Your task to perform on an android device: Open privacy settings Image 0: 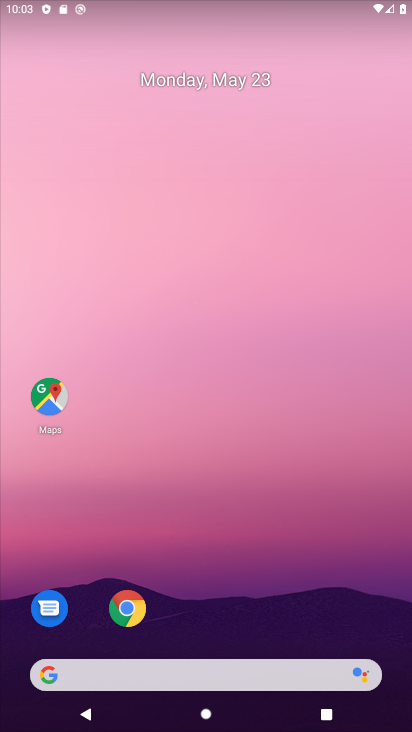
Step 0: click (127, 607)
Your task to perform on an android device: Open privacy settings Image 1: 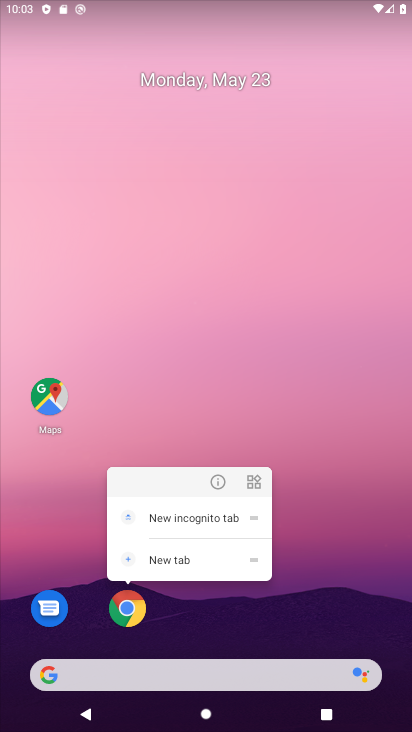
Step 1: click (136, 616)
Your task to perform on an android device: Open privacy settings Image 2: 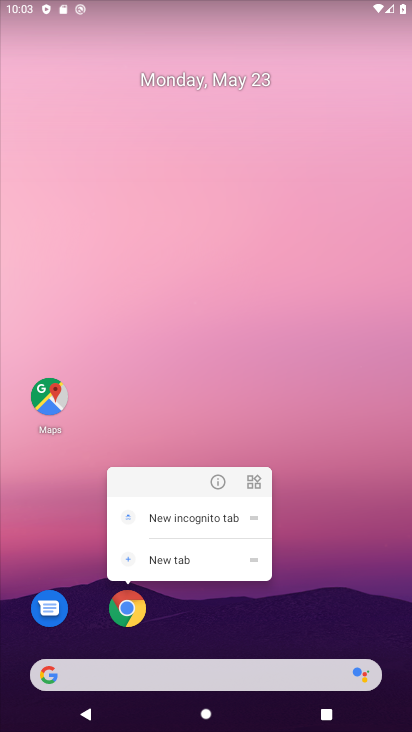
Step 2: click (133, 614)
Your task to perform on an android device: Open privacy settings Image 3: 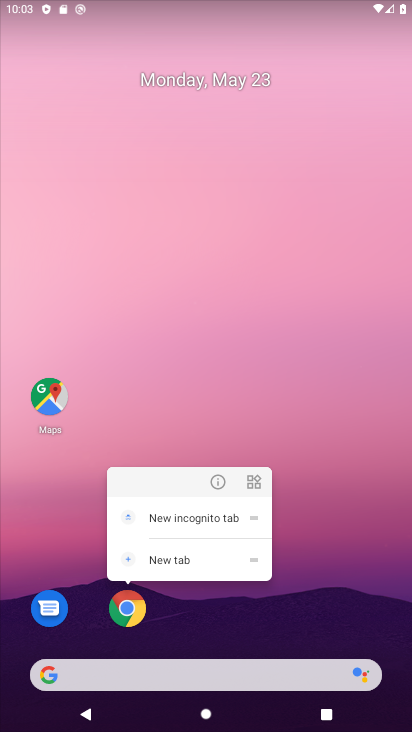
Step 3: click (116, 621)
Your task to perform on an android device: Open privacy settings Image 4: 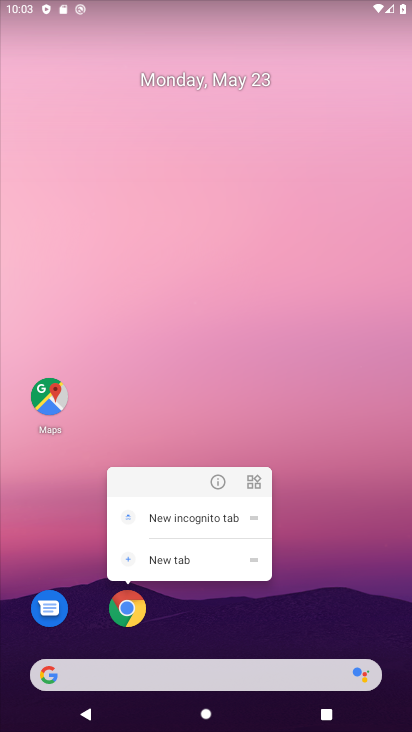
Step 4: click (129, 615)
Your task to perform on an android device: Open privacy settings Image 5: 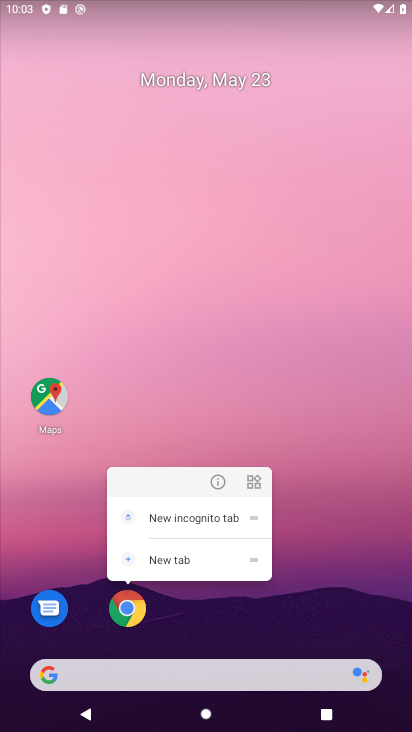
Step 5: click (134, 602)
Your task to perform on an android device: Open privacy settings Image 6: 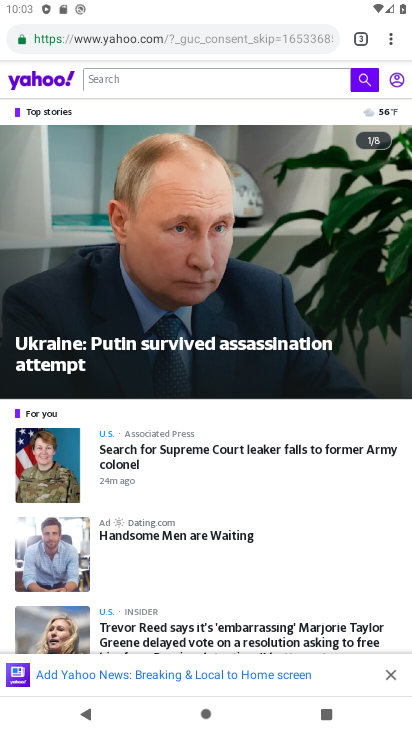
Step 6: drag from (398, 48) to (313, 465)
Your task to perform on an android device: Open privacy settings Image 7: 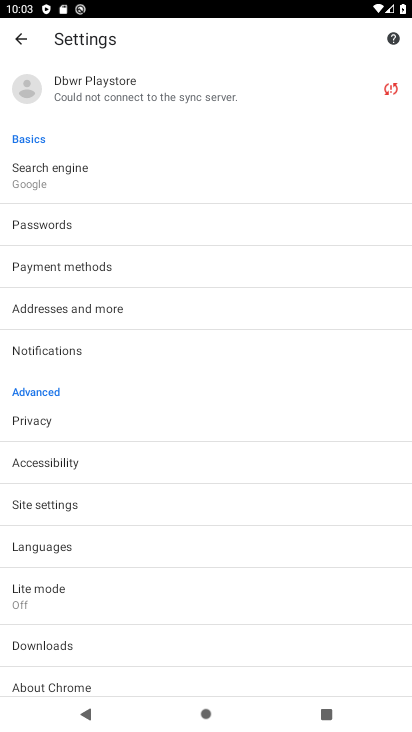
Step 7: click (88, 422)
Your task to perform on an android device: Open privacy settings Image 8: 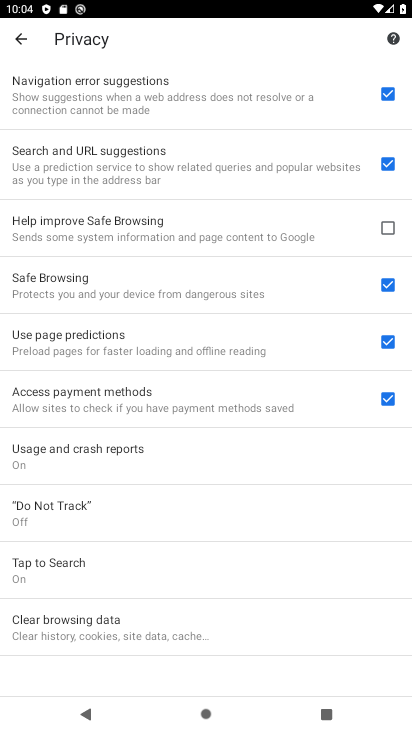
Step 8: task complete